Your task to perform on an android device: find snoozed emails in the gmail app Image 0: 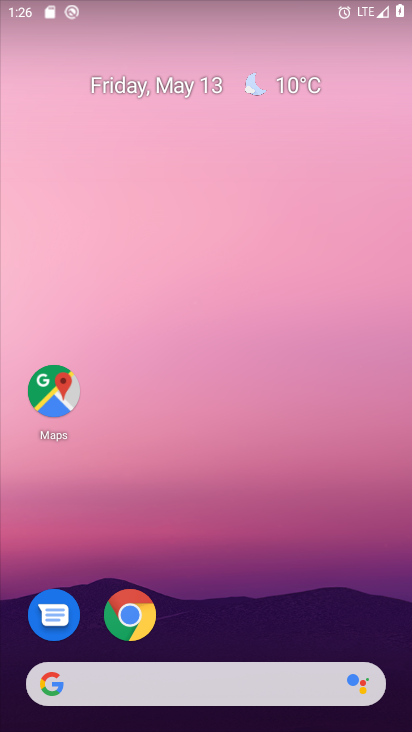
Step 0: drag from (311, 575) to (287, 0)
Your task to perform on an android device: find snoozed emails in the gmail app Image 1: 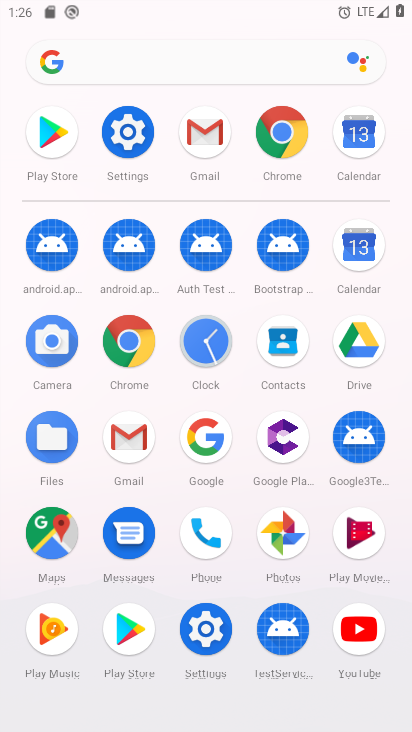
Step 1: click (204, 118)
Your task to perform on an android device: find snoozed emails in the gmail app Image 2: 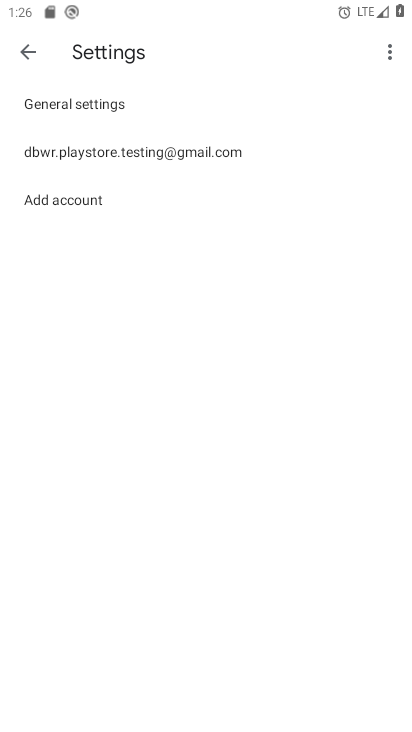
Step 2: click (31, 47)
Your task to perform on an android device: find snoozed emails in the gmail app Image 3: 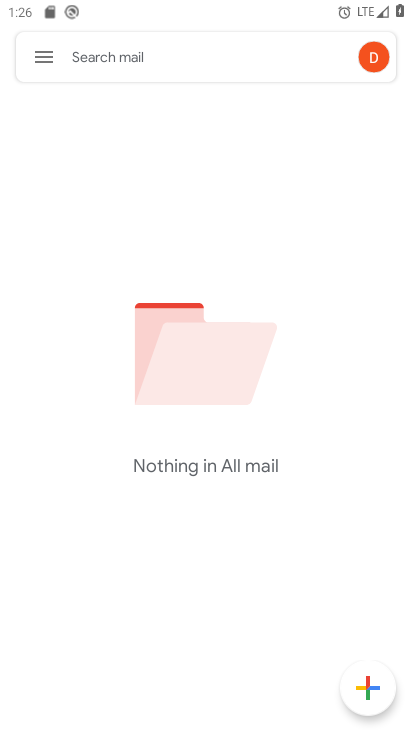
Step 3: click (47, 54)
Your task to perform on an android device: find snoozed emails in the gmail app Image 4: 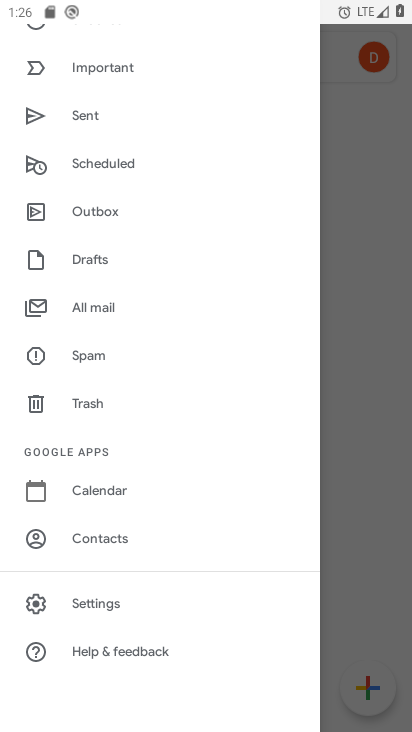
Step 4: drag from (180, 198) to (171, 544)
Your task to perform on an android device: find snoozed emails in the gmail app Image 5: 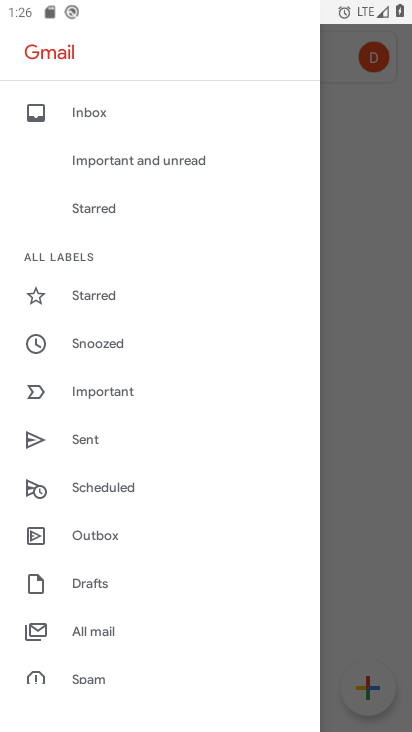
Step 5: click (174, 347)
Your task to perform on an android device: find snoozed emails in the gmail app Image 6: 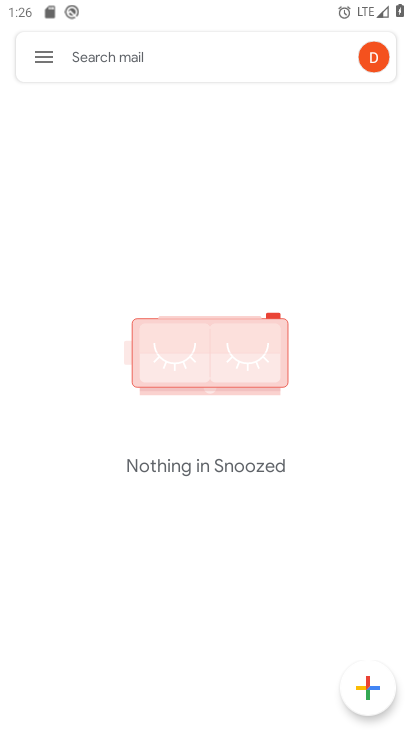
Step 6: task complete